Your task to perform on an android device: turn on the 24-hour format for clock Image 0: 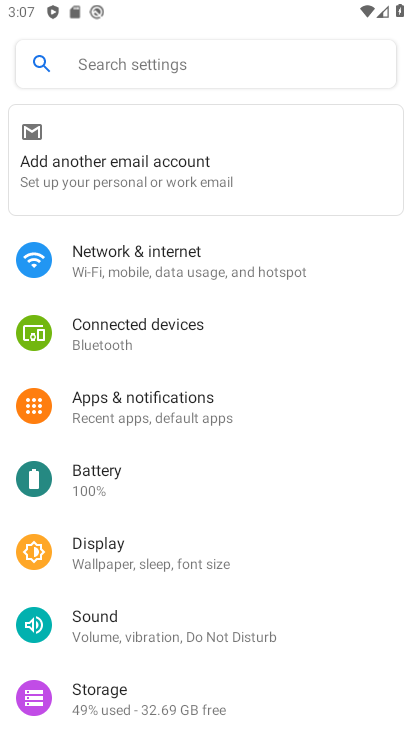
Step 0: press home button
Your task to perform on an android device: turn on the 24-hour format for clock Image 1: 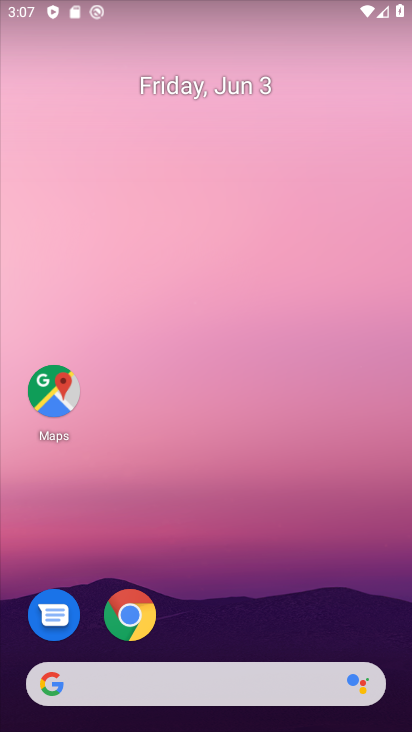
Step 1: drag from (247, 627) to (267, 62)
Your task to perform on an android device: turn on the 24-hour format for clock Image 2: 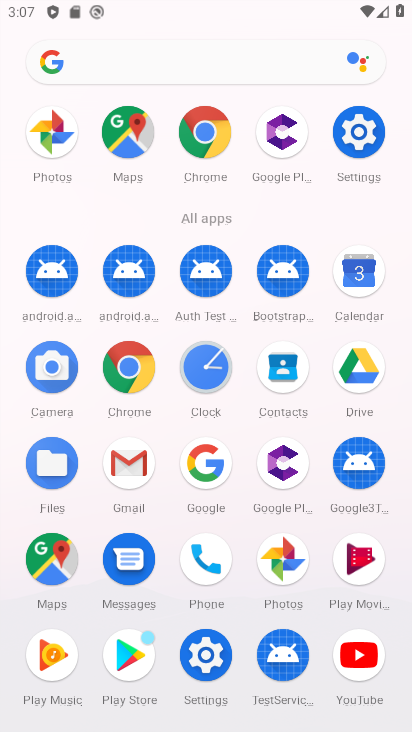
Step 2: click (193, 374)
Your task to perform on an android device: turn on the 24-hour format for clock Image 3: 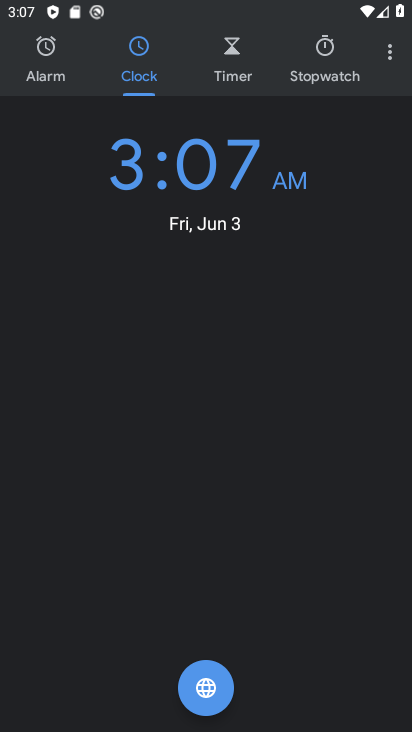
Step 3: click (394, 67)
Your task to perform on an android device: turn on the 24-hour format for clock Image 4: 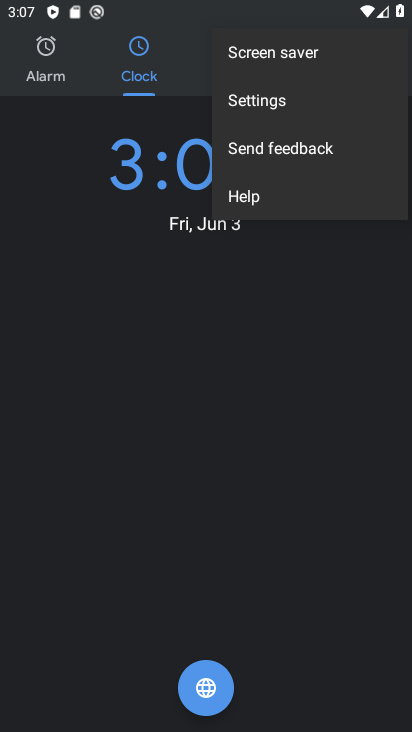
Step 4: click (296, 106)
Your task to perform on an android device: turn on the 24-hour format for clock Image 5: 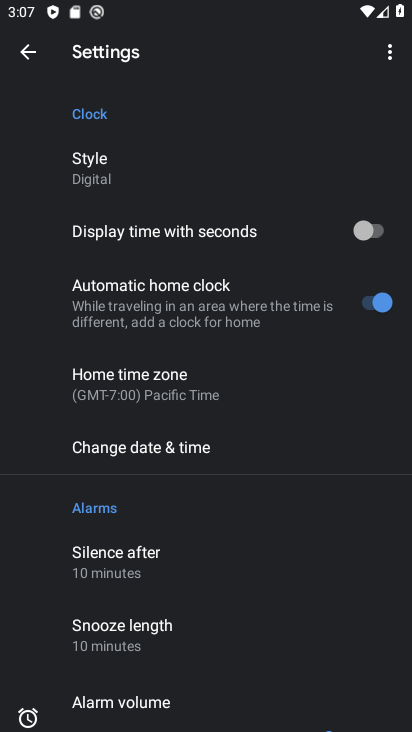
Step 5: click (287, 447)
Your task to perform on an android device: turn on the 24-hour format for clock Image 6: 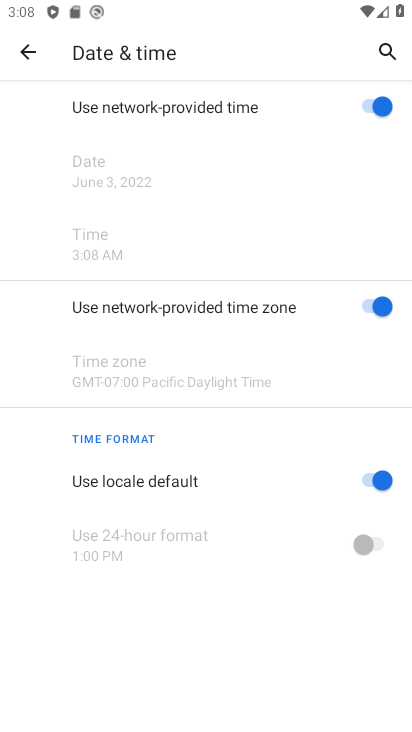
Step 6: click (376, 473)
Your task to perform on an android device: turn on the 24-hour format for clock Image 7: 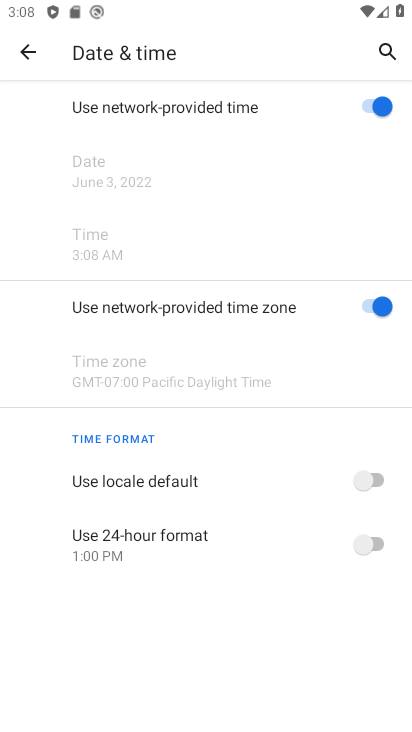
Step 7: click (381, 541)
Your task to perform on an android device: turn on the 24-hour format for clock Image 8: 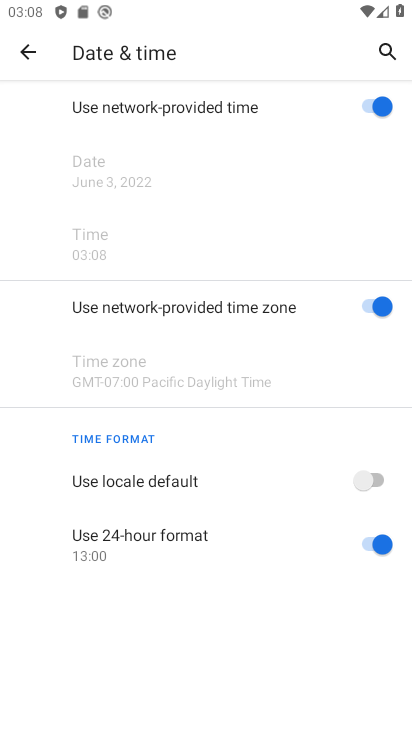
Step 8: task complete